Your task to perform on an android device: toggle location history Image 0: 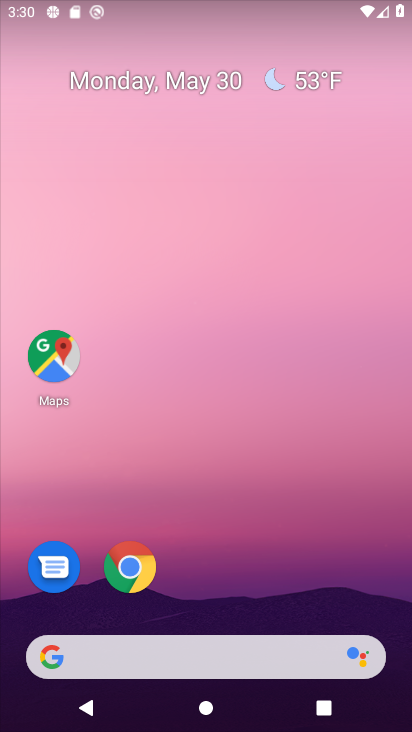
Step 0: drag from (289, 661) to (347, 8)
Your task to perform on an android device: toggle location history Image 1: 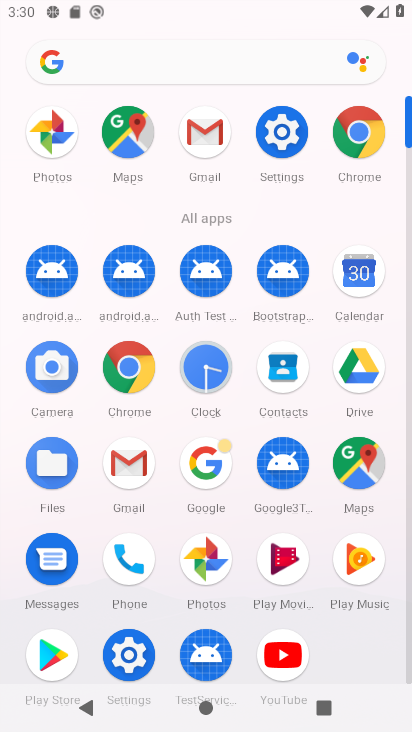
Step 1: click (269, 146)
Your task to perform on an android device: toggle location history Image 2: 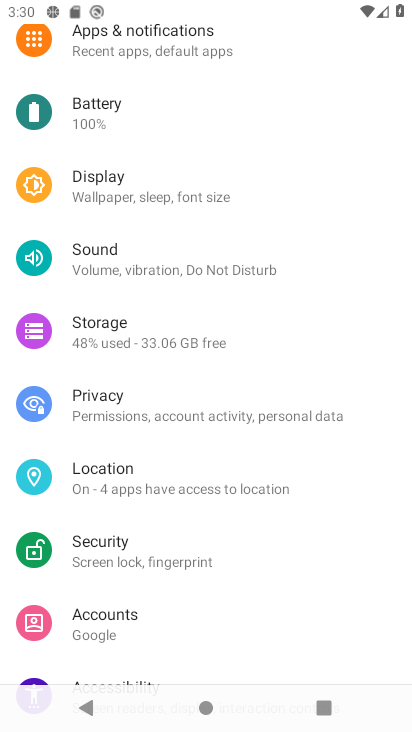
Step 2: click (200, 476)
Your task to perform on an android device: toggle location history Image 3: 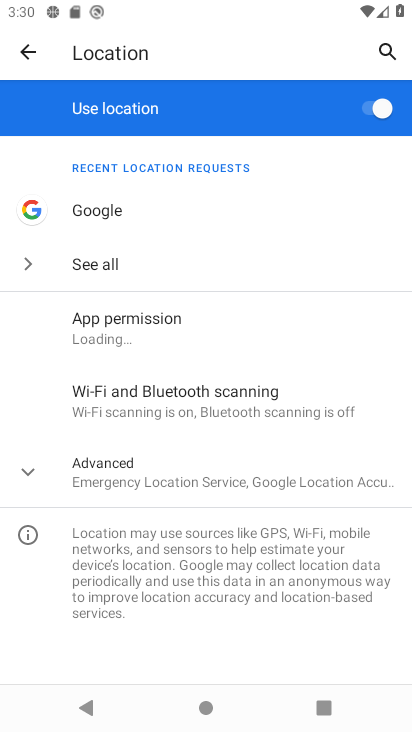
Step 3: click (221, 472)
Your task to perform on an android device: toggle location history Image 4: 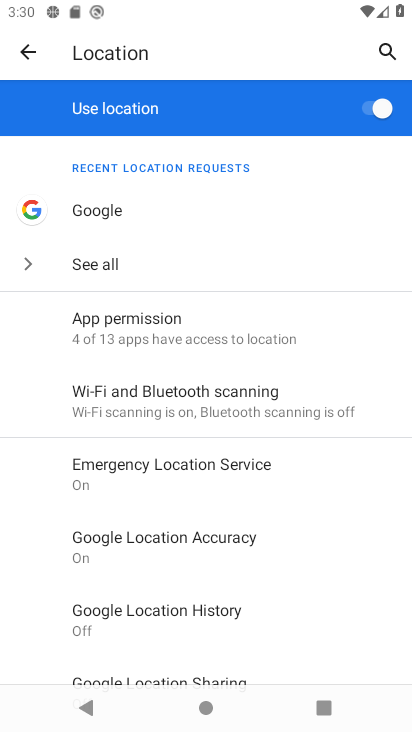
Step 4: click (133, 621)
Your task to perform on an android device: toggle location history Image 5: 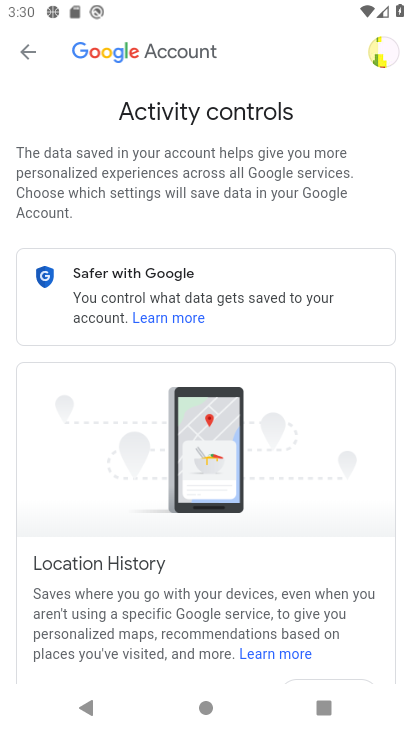
Step 5: drag from (303, 474) to (322, 9)
Your task to perform on an android device: toggle location history Image 6: 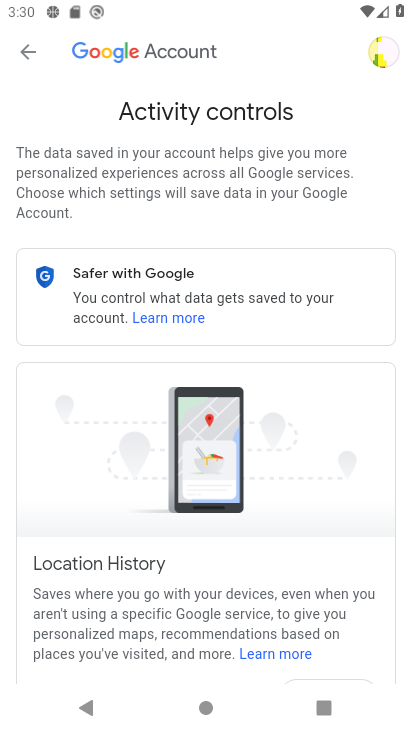
Step 6: drag from (277, 553) to (371, 31)
Your task to perform on an android device: toggle location history Image 7: 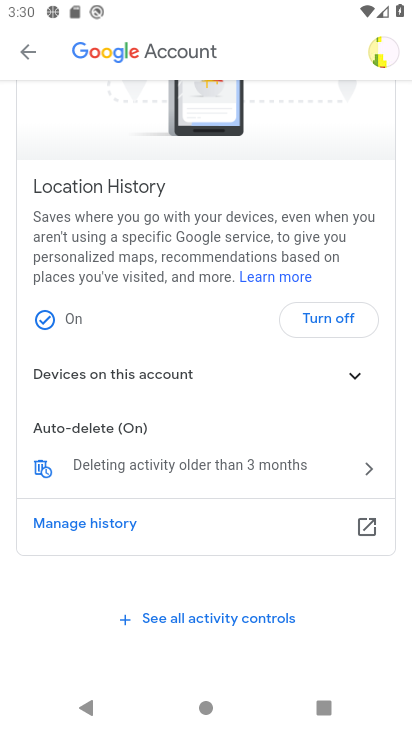
Step 7: click (334, 313)
Your task to perform on an android device: toggle location history Image 8: 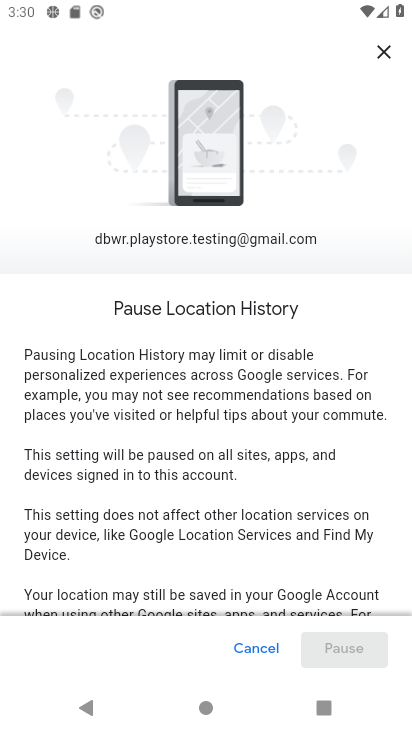
Step 8: drag from (258, 530) to (238, 36)
Your task to perform on an android device: toggle location history Image 9: 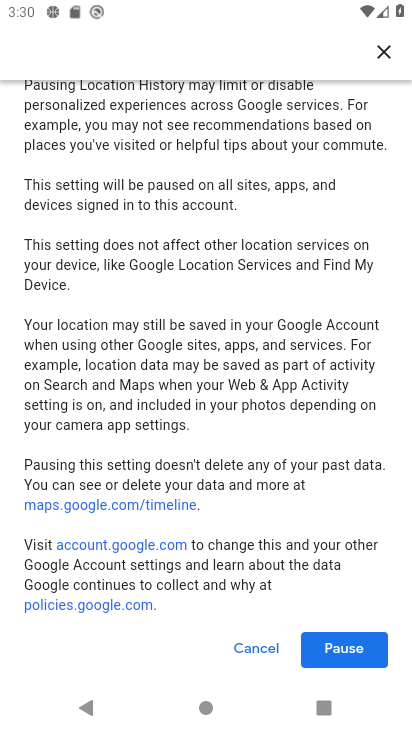
Step 9: click (327, 640)
Your task to perform on an android device: toggle location history Image 10: 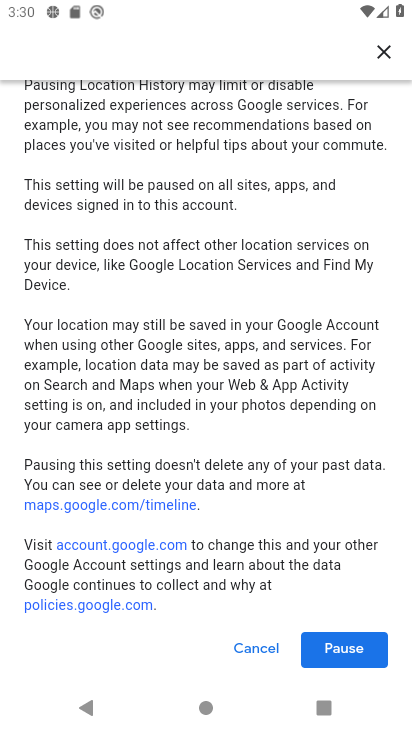
Step 10: click (354, 651)
Your task to perform on an android device: toggle location history Image 11: 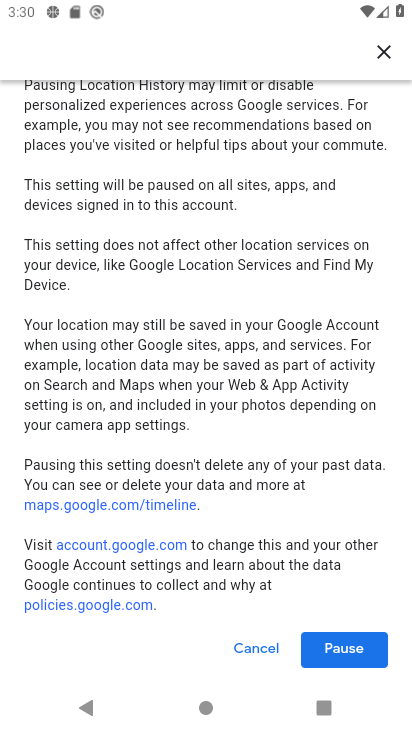
Step 11: click (354, 651)
Your task to perform on an android device: toggle location history Image 12: 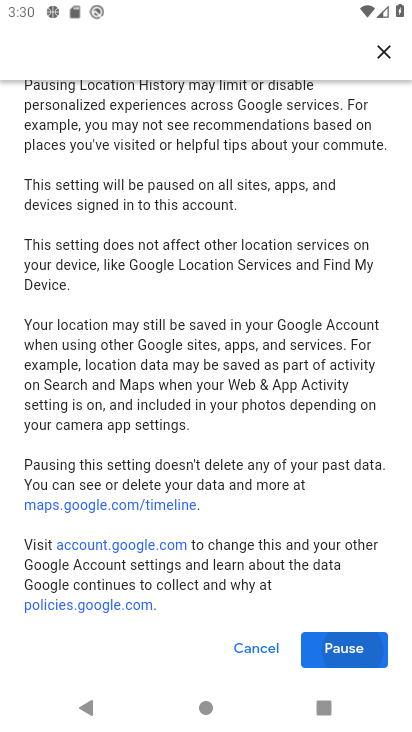
Step 12: click (354, 651)
Your task to perform on an android device: toggle location history Image 13: 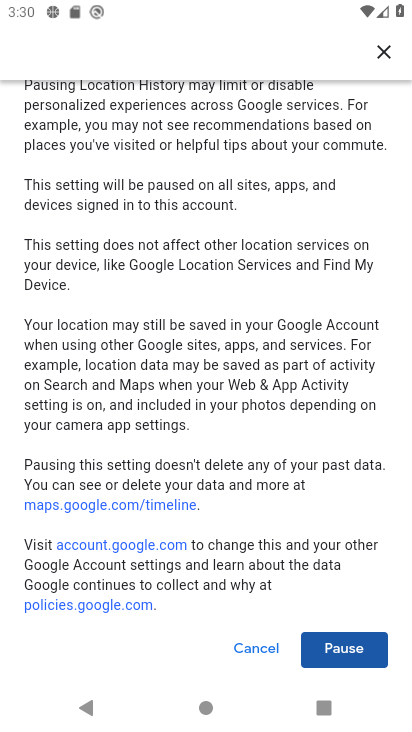
Step 13: click (354, 651)
Your task to perform on an android device: toggle location history Image 14: 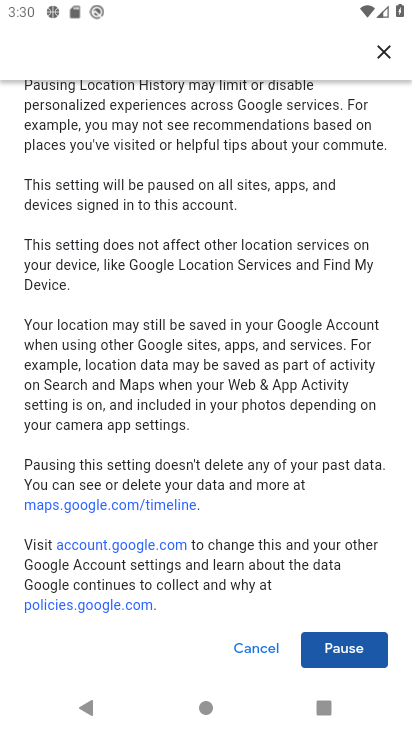
Step 14: click (354, 651)
Your task to perform on an android device: toggle location history Image 15: 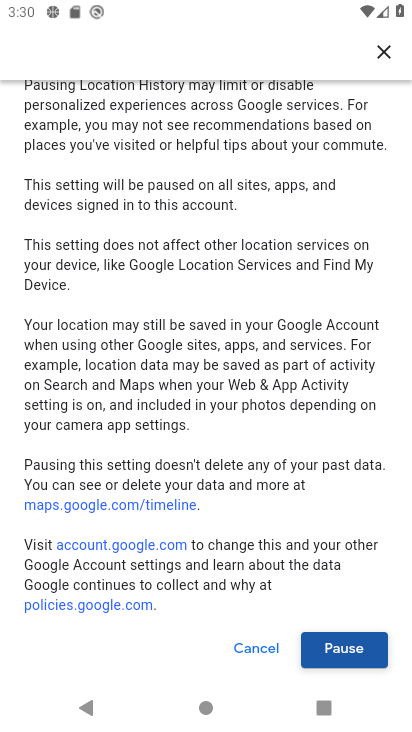
Step 15: click (357, 648)
Your task to perform on an android device: toggle location history Image 16: 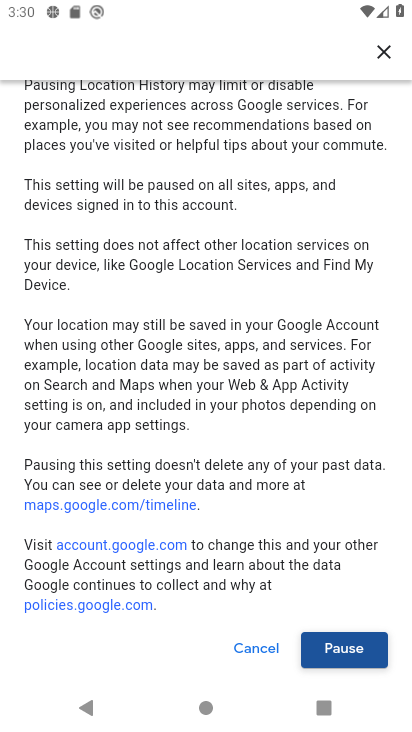
Step 16: click (357, 648)
Your task to perform on an android device: toggle location history Image 17: 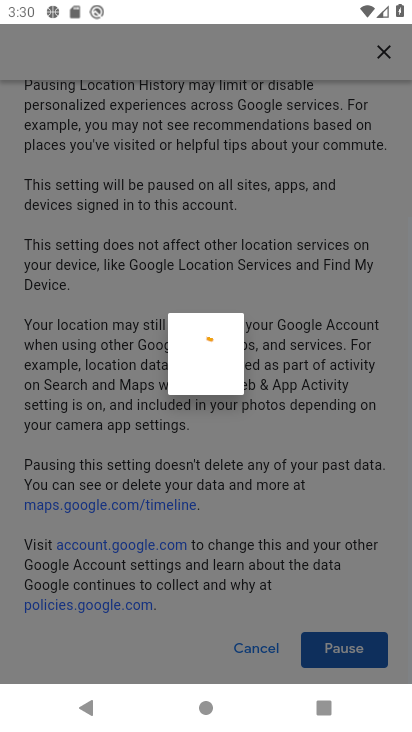
Step 17: click (357, 648)
Your task to perform on an android device: toggle location history Image 18: 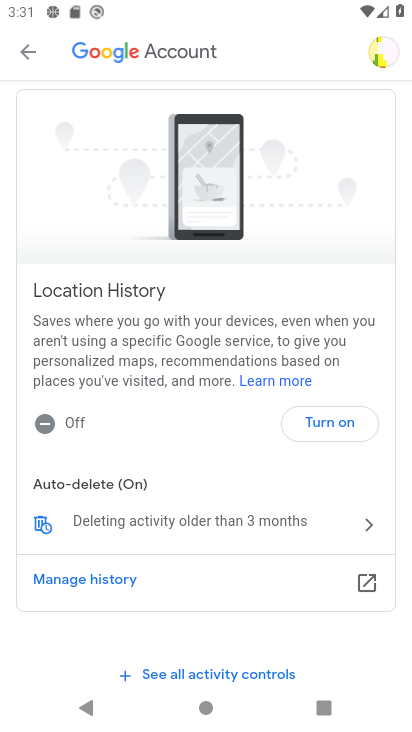
Step 18: task complete